Your task to perform on an android device: What's on my calendar today? Image 0: 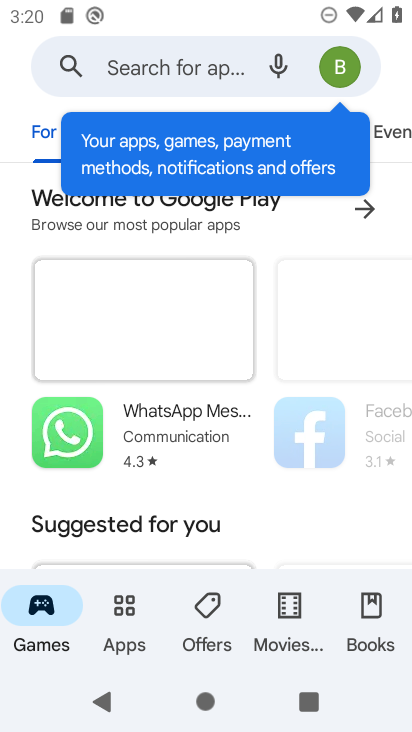
Step 0: press home button
Your task to perform on an android device: What's on my calendar today? Image 1: 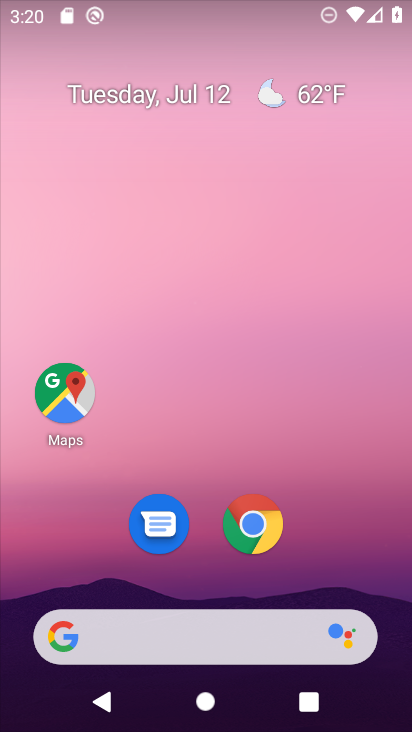
Step 1: drag from (318, 568) to (370, 91)
Your task to perform on an android device: What's on my calendar today? Image 2: 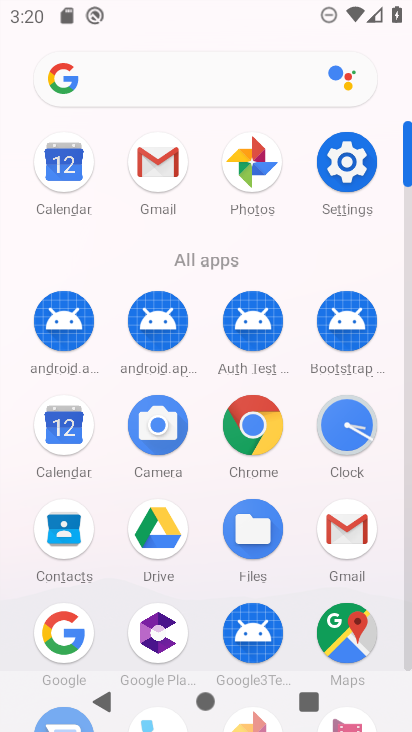
Step 2: click (64, 161)
Your task to perform on an android device: What's on my calendar today? Image 3: 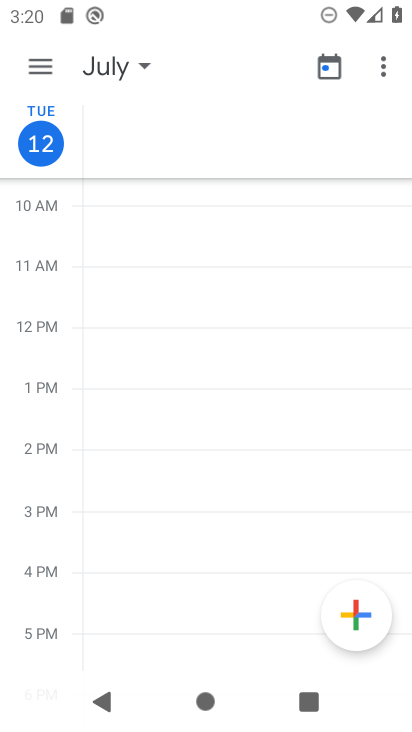
Step 3: task complete